Your task to perform on an android device: What's the weather today? Image 0: 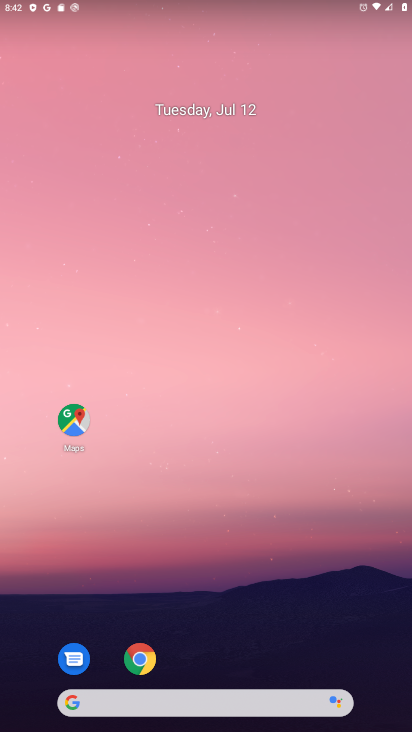
Step 0: drag from (232, 577) to (184, 159)
Your task to perform on an android device: What's the weather today? Image 1: 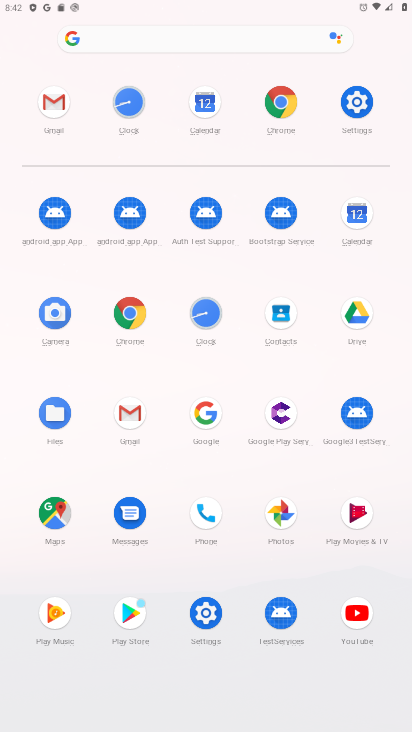
Step 1: click (351, 102)
Your task to perform on an android device: What's the weather today? Image 2: 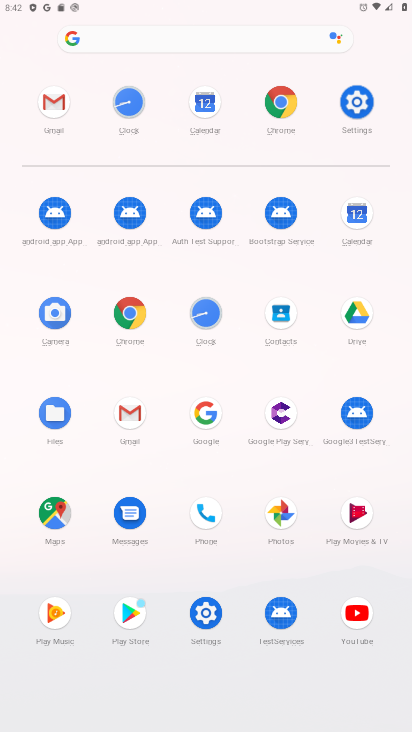
Step 2: click (351, 102)
Your task to perform on an android device: What's the weather today? Image 3: 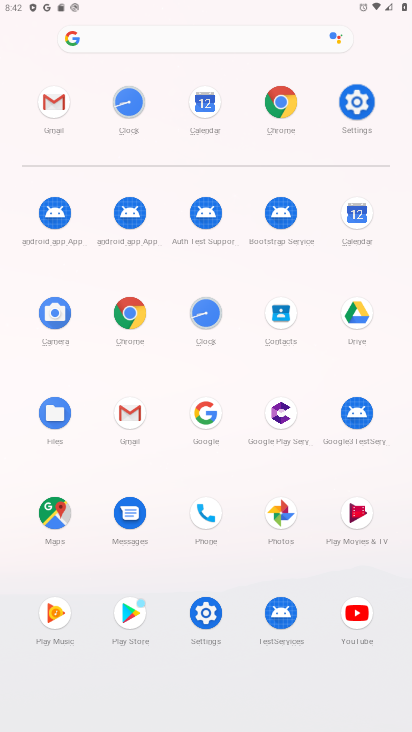
Step 3: click (351, 102)
Your task to perform on an android device: What's the weather today? Image 4: 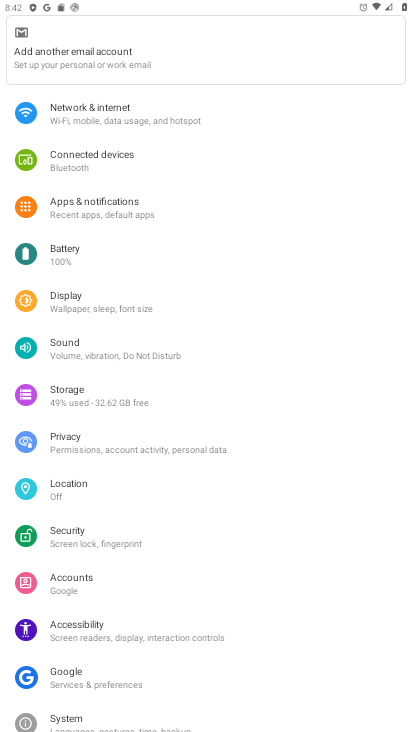
Step 4: click (105, 112)
Your task to perform on an android device: What's the weather today? Image 5: 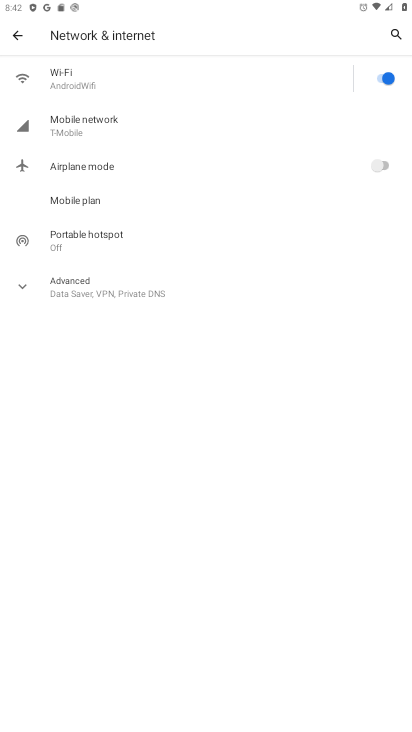
Step 5: click (20, 32)
Your task to perform on an android device: What's the weather today? Image 6: 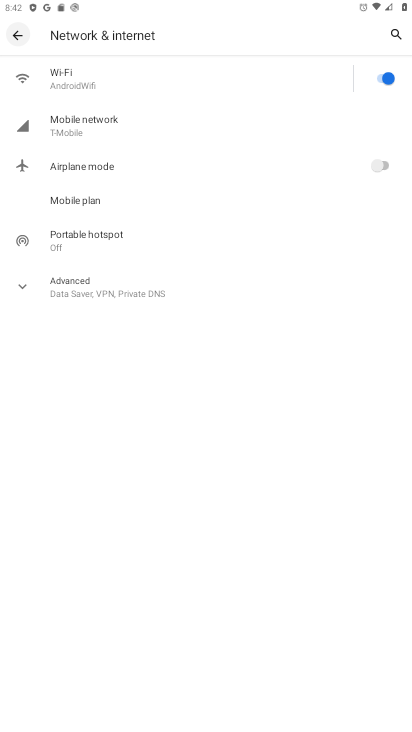
Step 6: click (21, 33)
Your task to perform on an android device: What's the weather today? Image 7: 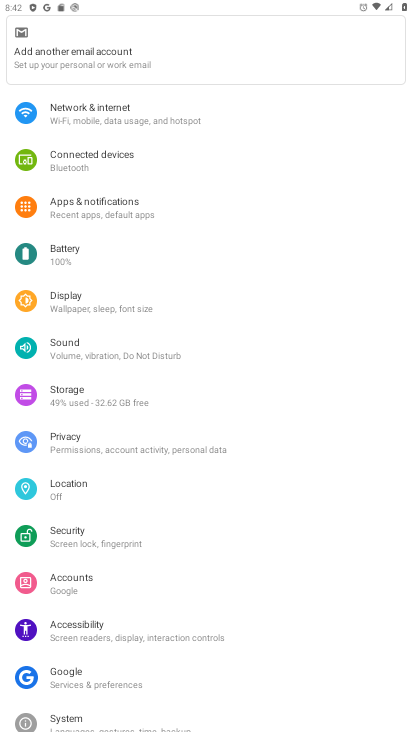
Step 7: press back button
Your task to perform on an android device: What's the weather today? Image 8: 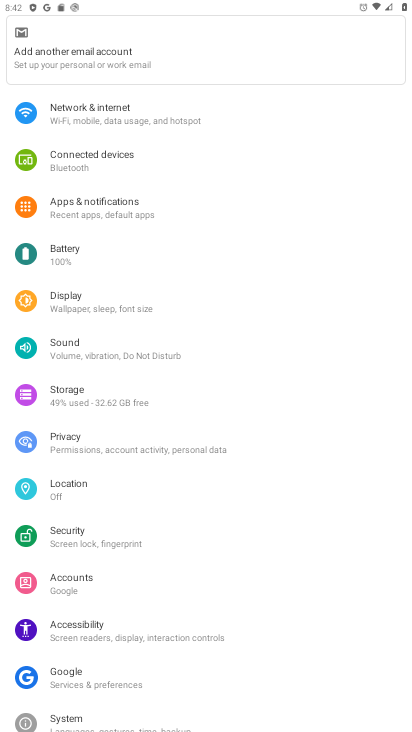
Step 8: press back button
Your task to perform on an android device: What's the weather today? Image 9: 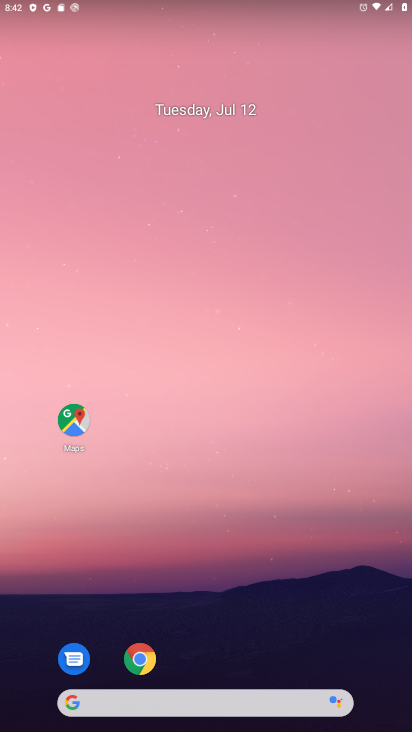
Step 9: drag from (227, 631) to (155, 32)
Your task to perform on an android device: What's the weather today? Image 10: 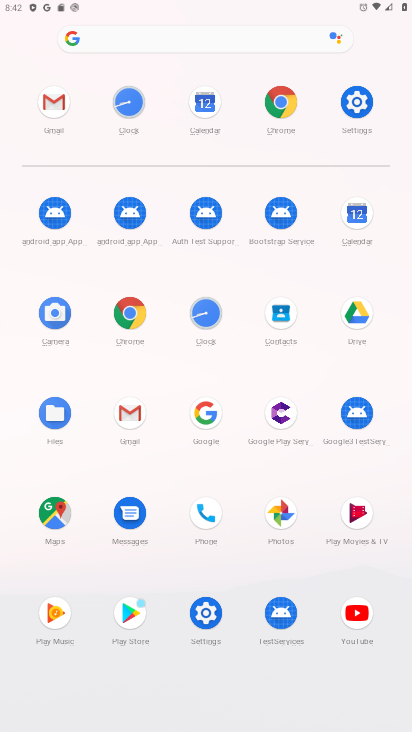
Step 10: click (289, 110)
Your task to perform on an android device: What's the weather today? Image 11: 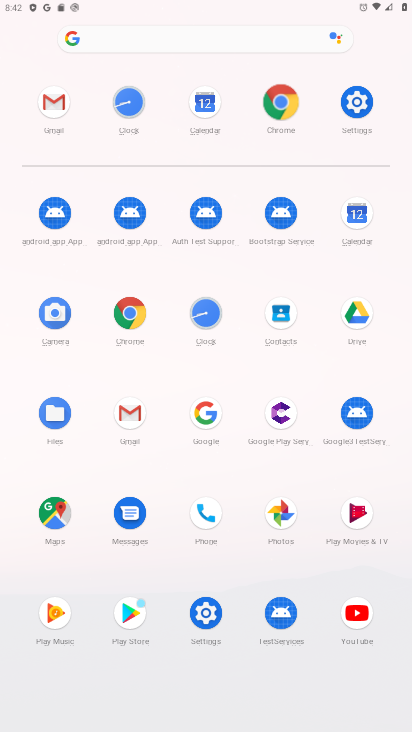
Step 11: click (289, 110)
Your task to perform on an android device: What's the weather today? Image 12: 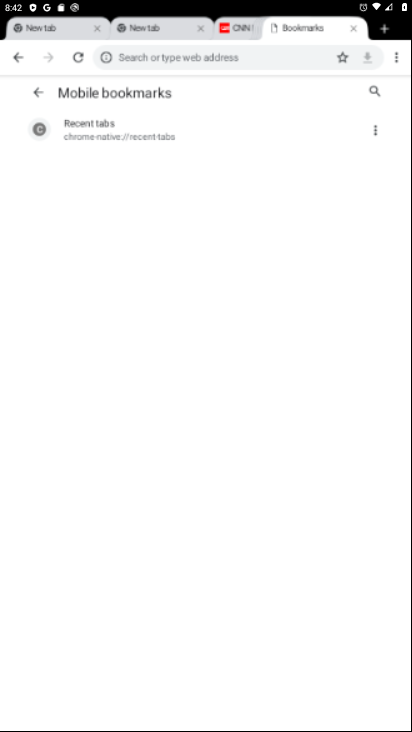
Step 12: click (290, 111)
Your task to perform on an android device: What's the weather today? Image 13: 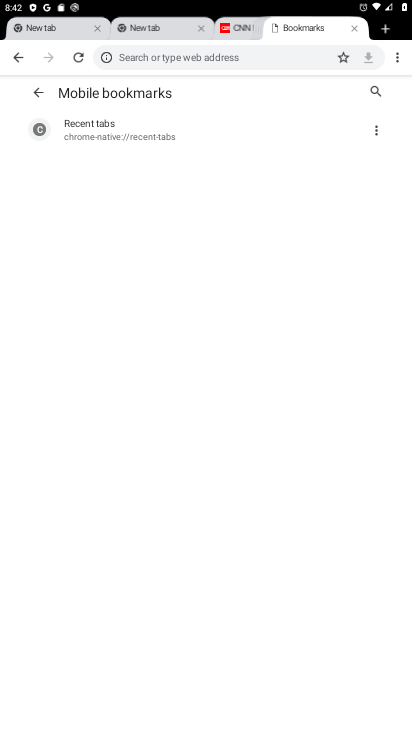
Step 13: drag from (393, 56) to (289, 55)
Your task to perform on an android device: What's the weather today? Image 14: 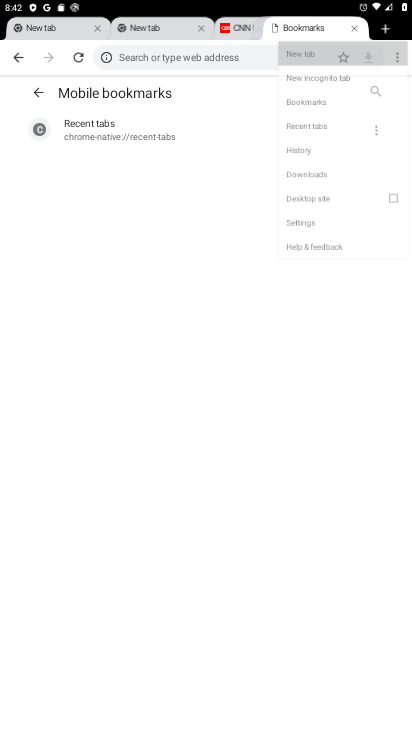
Step 14: click (289, 53)
Your task to perform on an android device: What's the weather today? Image 15: 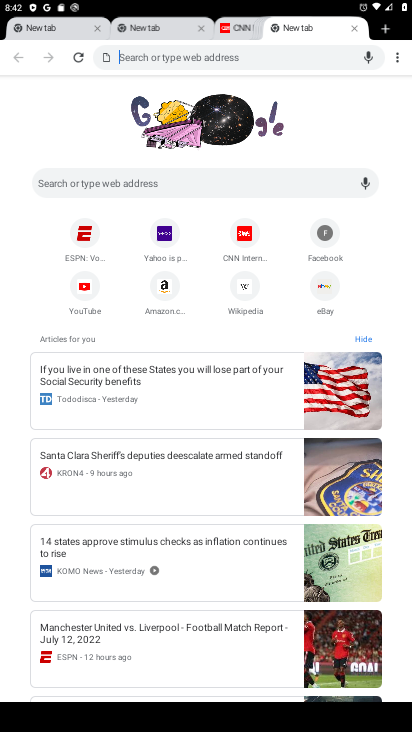
Step 15: click (98, 194)
Your task to perform on an android device: What's the weather today? Image 16: 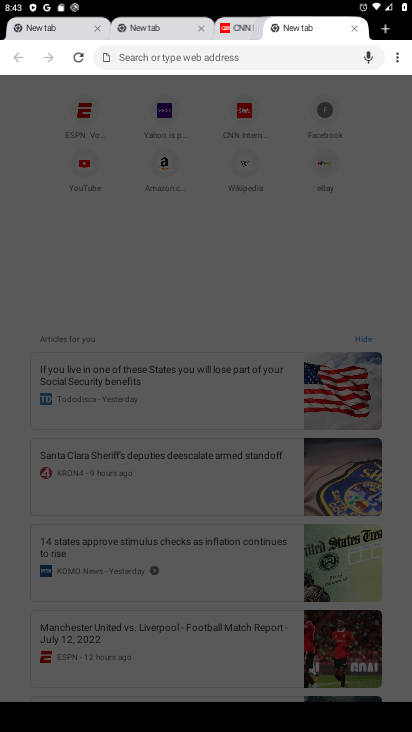
Step 16: type "weather today"
Your task to perform on an android device: What's the weather today? Image 17: 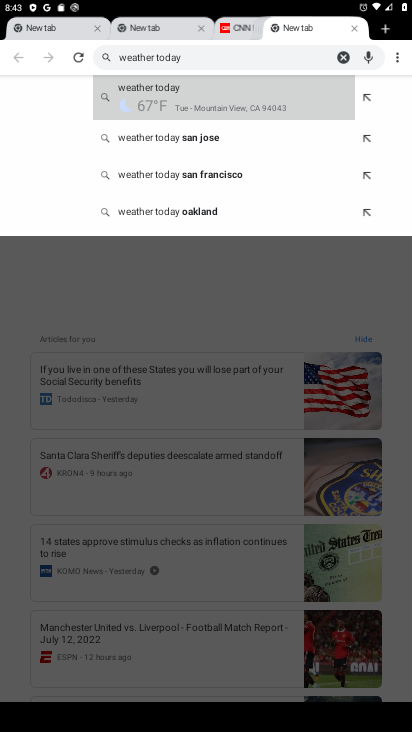
Step 17: click (160, 104)
Your task to perform on an android device: What's the weather today? Image 18: 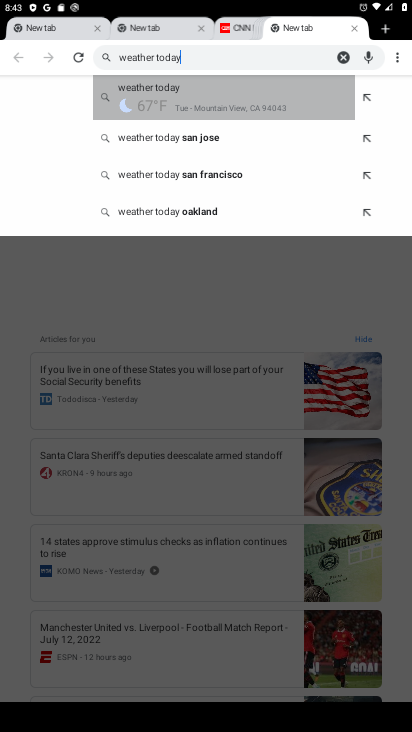
Step 18: click (163, 104)
Your task to perform on an android device: What's the weather today? Image 19: 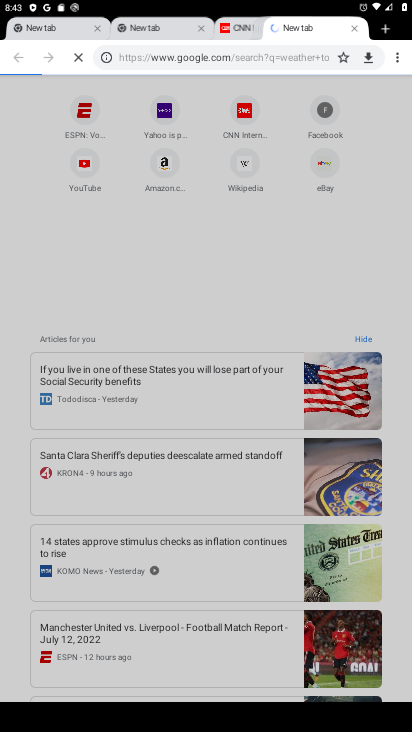
Step 19: click (164, 106)
Your task to perform on an android device: What's the weather today? Image 20: 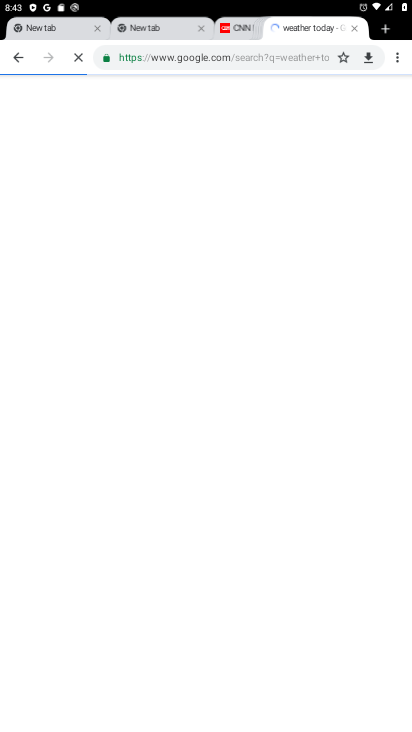
Step 20: click (165, 106)
Your task to perform on an android device: What's the weather today? Image 21: 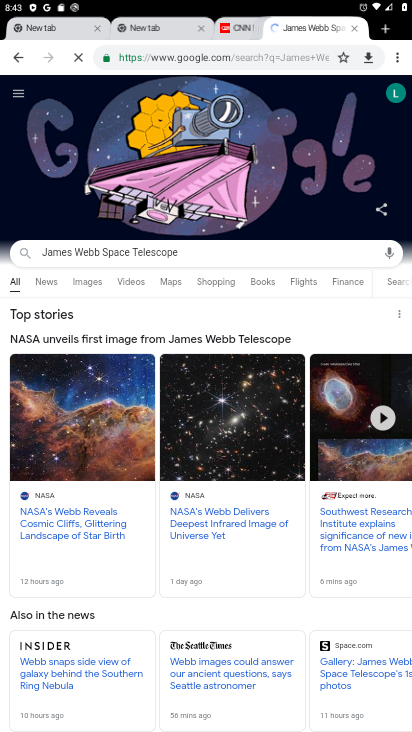
Step 21: task complete